Your task to perform on an android device: toggle translation in the chrome app Image 0: 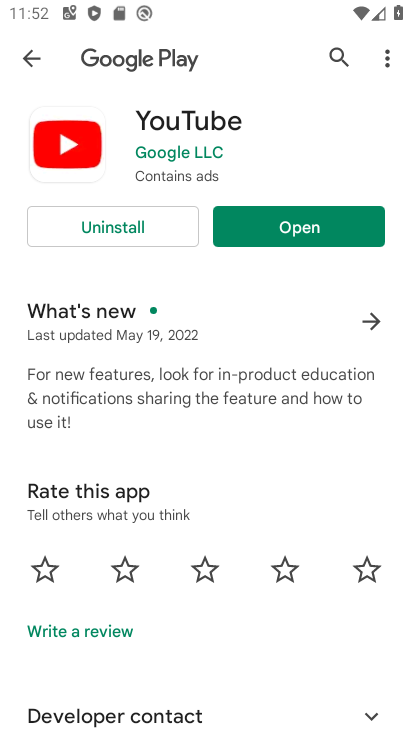
Step 0: press home button
Your task to perform on an android device: toggle translation in the chrome app Image 1: 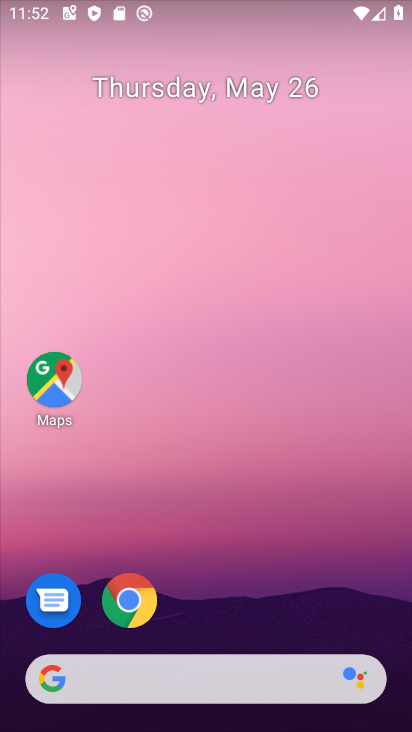
Step 1: click (133, 597)
Your task to perform on an android device: toggle translation in the chrome app Image 2: 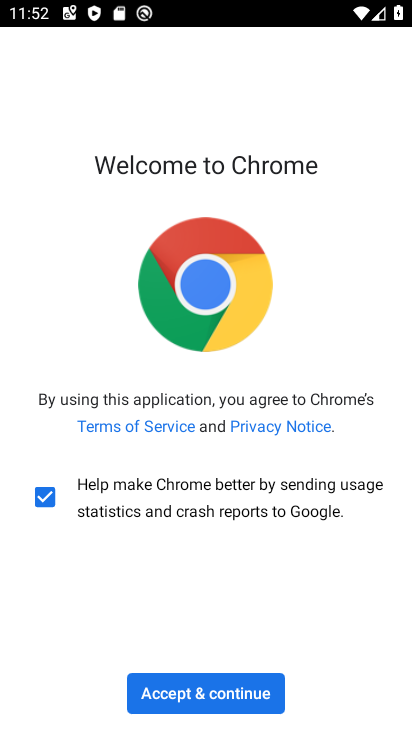
Step 2: click (265, 700)
Your task to perform on an android device: toggle translation in the chrome app Image 3: 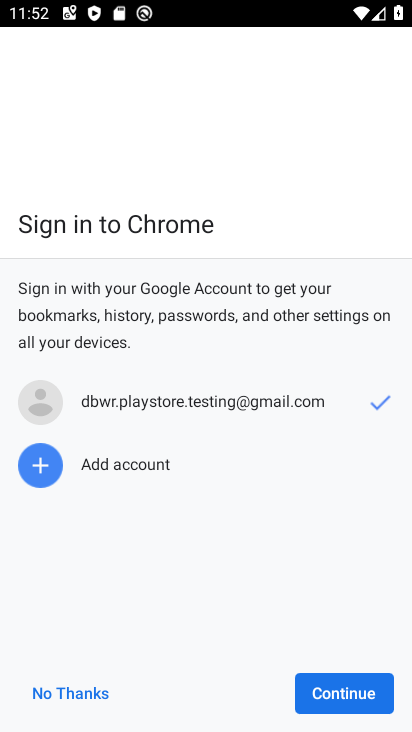
Step 3: click (318, 704)
Your task to perform on an android device: toggle translation in the chrome app Image 4: 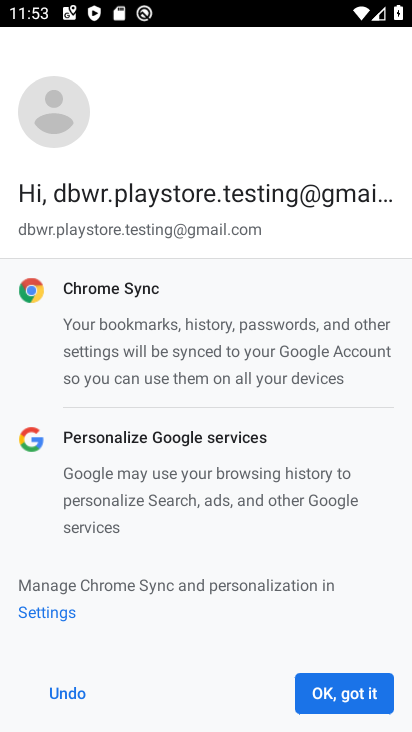
Step 4: click (318, 704)
Your task to perform on an android device: toggle translation in the chrome app Image 5: 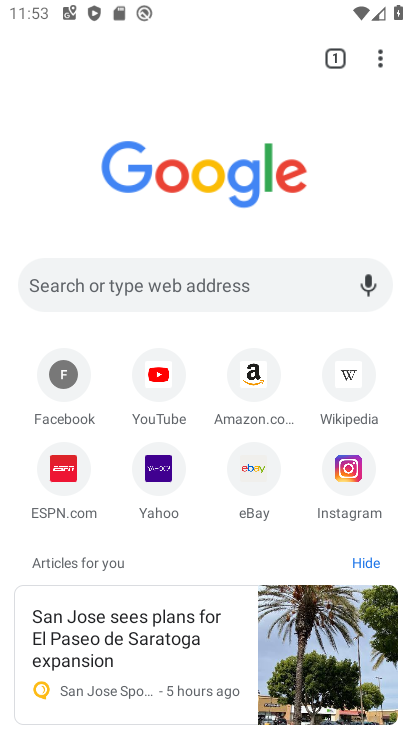
Step 5: click (388, 59)
Your task to perform on an android device: toggle translation in the chrome app Image 6: 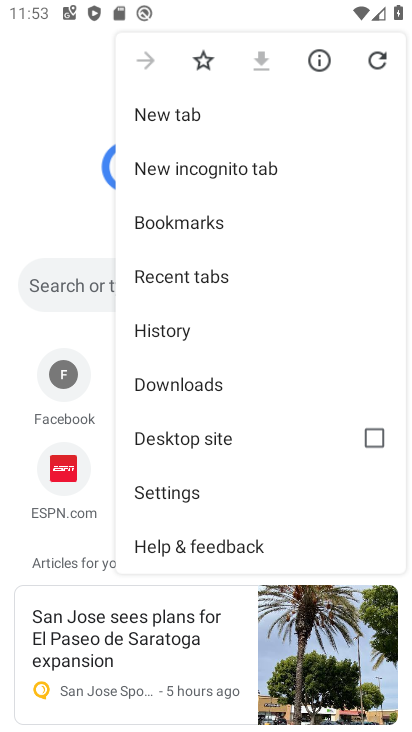
Step 6: click (141, 503)
Your task to perform on an android device: toggle translation in the chrome app Image 7: 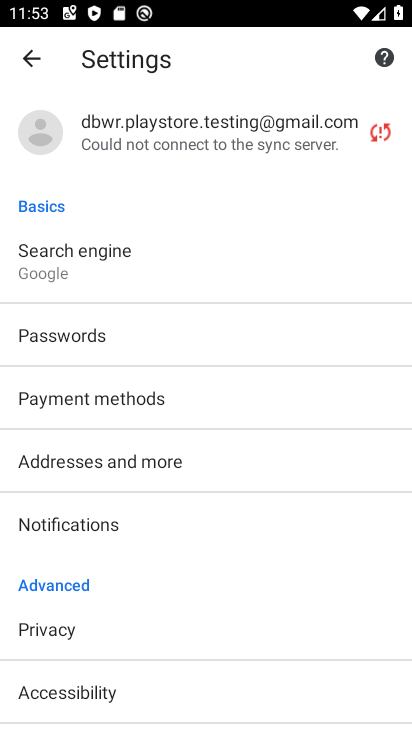
Step 7: click (119, 275)
Your task to perform on an android device: toggle translation in the chrome app Image 8: 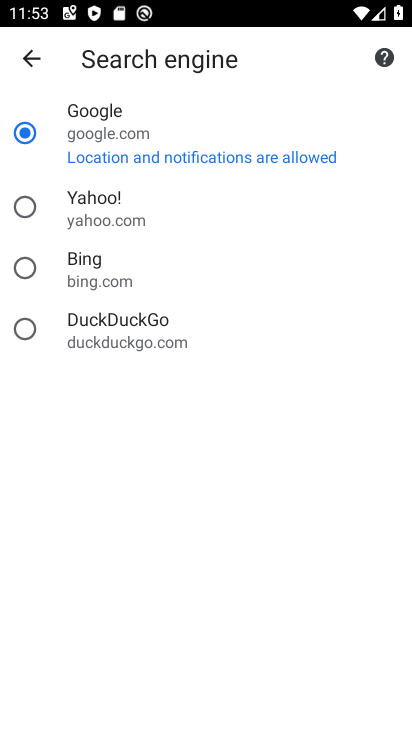
Step 8: click (119, 275)
Your task to perform on an android device: toggle translation in the chrome app Image 9: 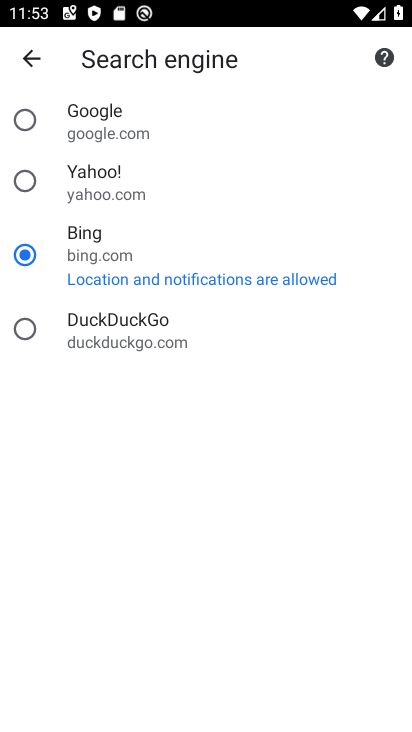
Step 9: task complete